Your task to perform on an android device: Go to calendar. Show me events next week Image 0: 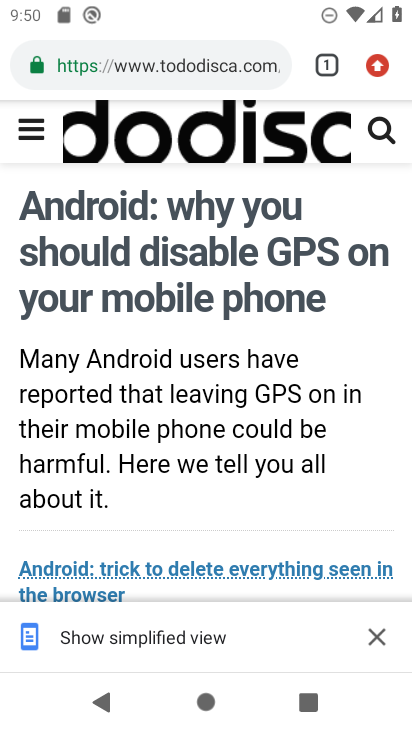
Step 0: press home button
Your task to perform on an android device: Go to calendar. Show me events next week Image 1: 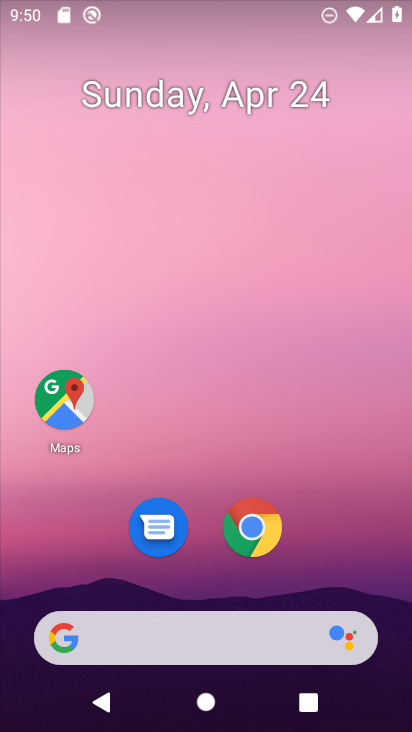
Step 1: drag from (394, 637) to (247, 66)
Your task to perform on an android device: Go to calendar. Show me events next week Image 2: 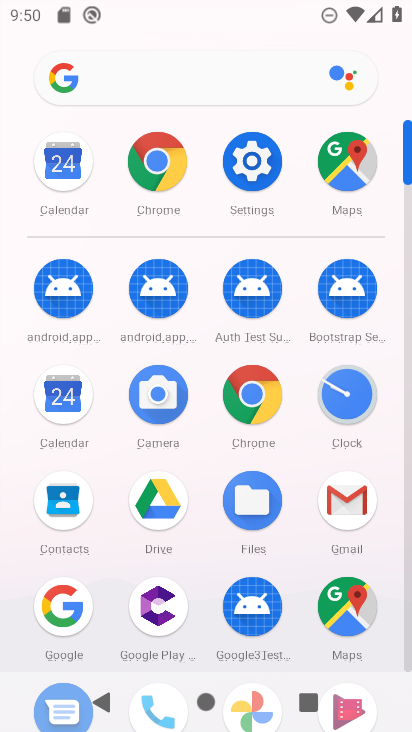
Step 2: click (70, 390)
Your task to perform on an android device: Go to calendar. Show me events next week Image 3: 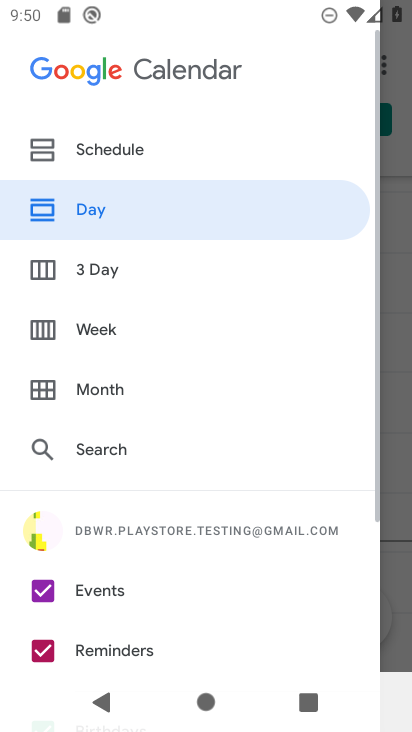
Step 3: press back button
Your task to perform on an android device: Go to calendar. Show me events next week Image 4: 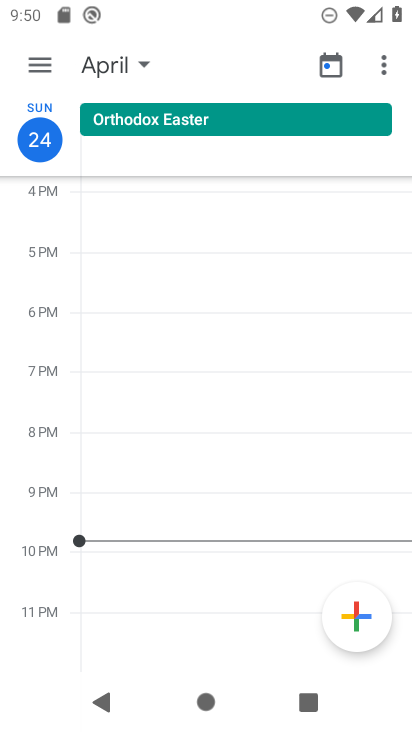
Step 4: click (103, 67)
Your task to perform on an android device: Go to calendar. Show me events next week Image 5: 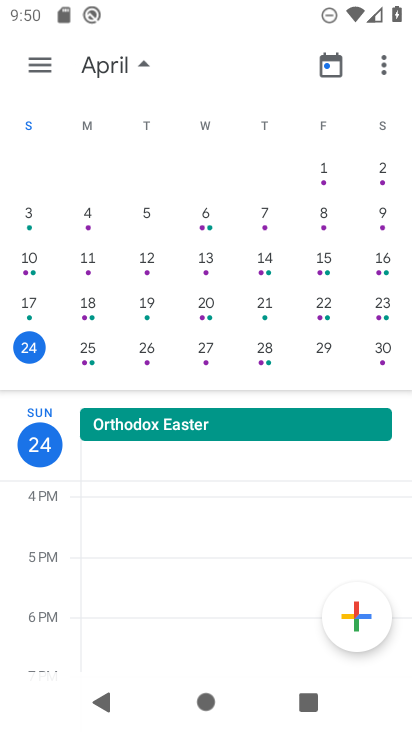
Step 5: click (91, 257)
Your task to perform on an android device: Go to calendar. Show me events next week Image 6: 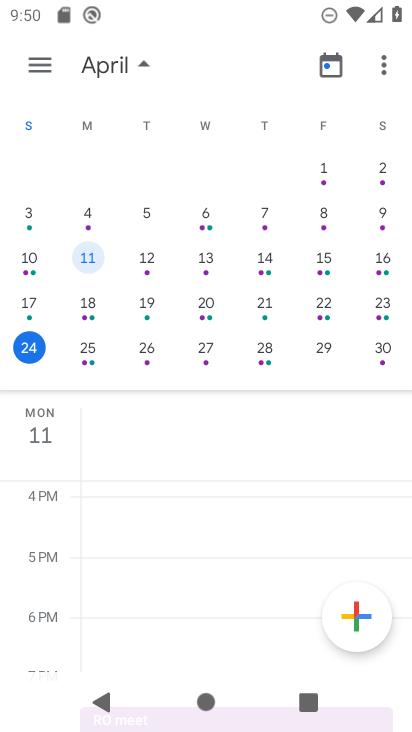
Step 6: click (360, 623)
Your task to perform on an android device: Go to calendar. Show me events next week Image 7: 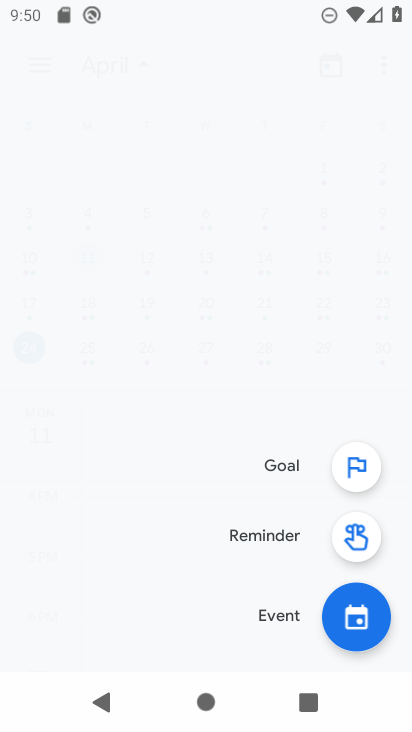
Step 7: click (263, 603)
Your task to perform on an android device: Go to calendar. Show me events next week Image 8: 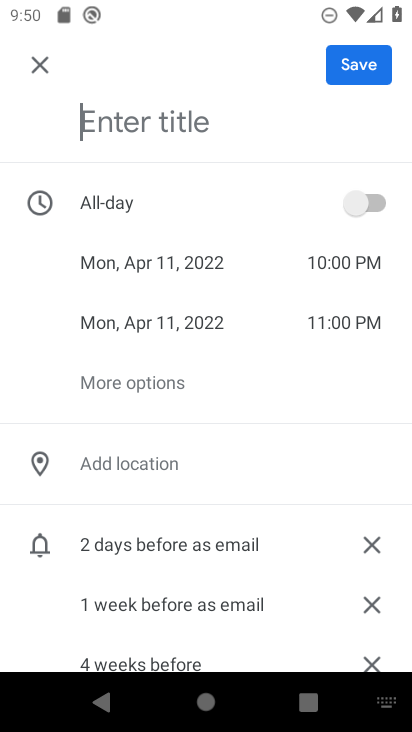
Step 8: type "run meet"
Your task to perform on an android device: Go to calendar. Show me events next week Image 9: 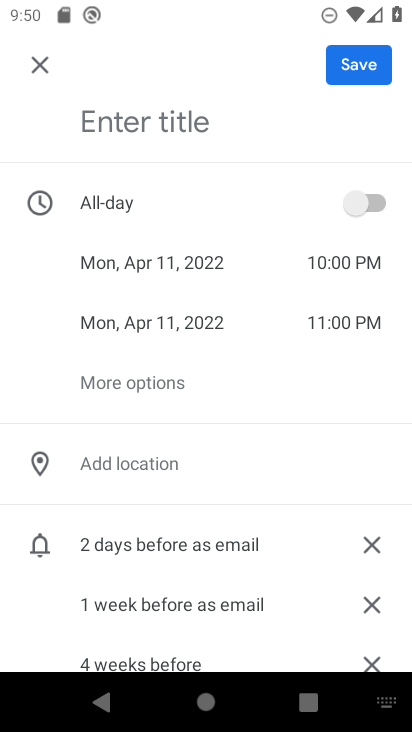
Step 9: click (355, 71)
Your task to perform on an android device: Go to calendar. Show me events next week Image 10: 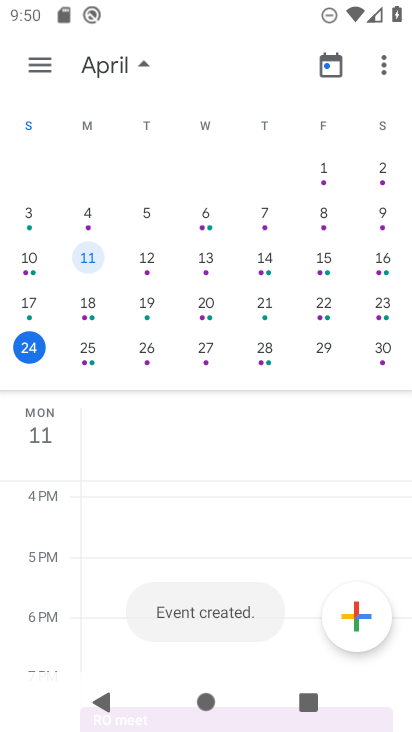
Step 10: task complete